Your task to perform on an android device: View the shopping cart on target. Add apple airpods pro to the cart on target Image 0: 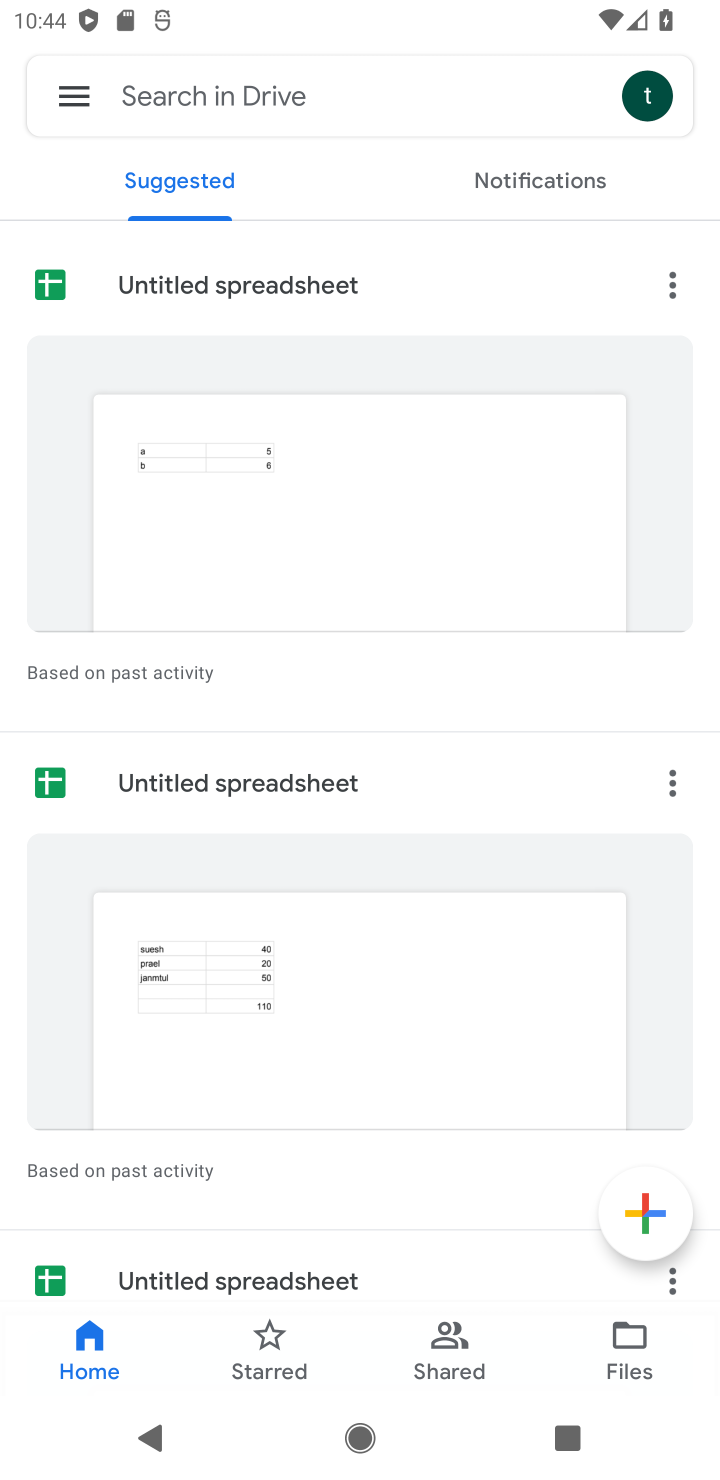
Step 0: press home button
Your task to perform on an android device: View the shopping cart on target. Add apple airpods pro to the cart on target Image 1: 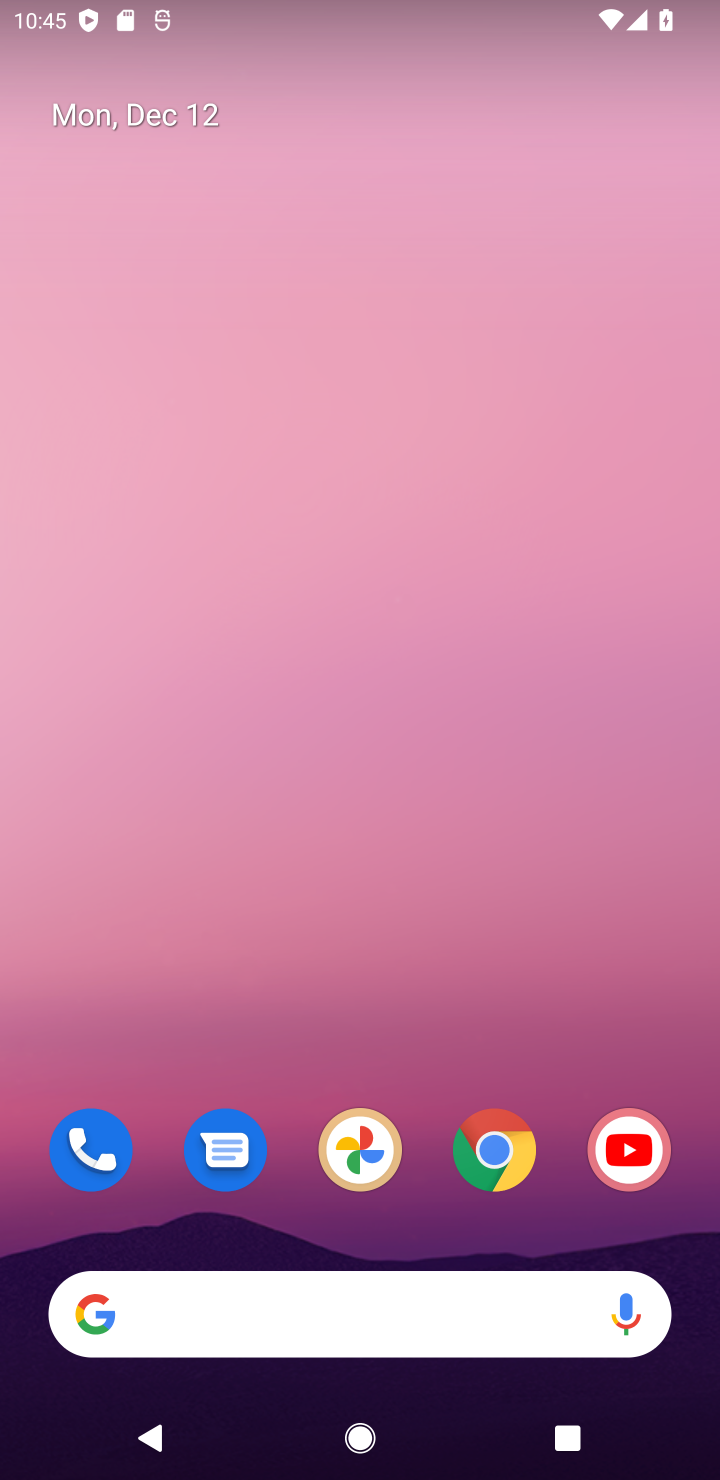
Step 1: click (501, 1145)
Your task to perform on an android device: View the shopping cart on target. Add apple airpods pro to the cart on target Image 2: 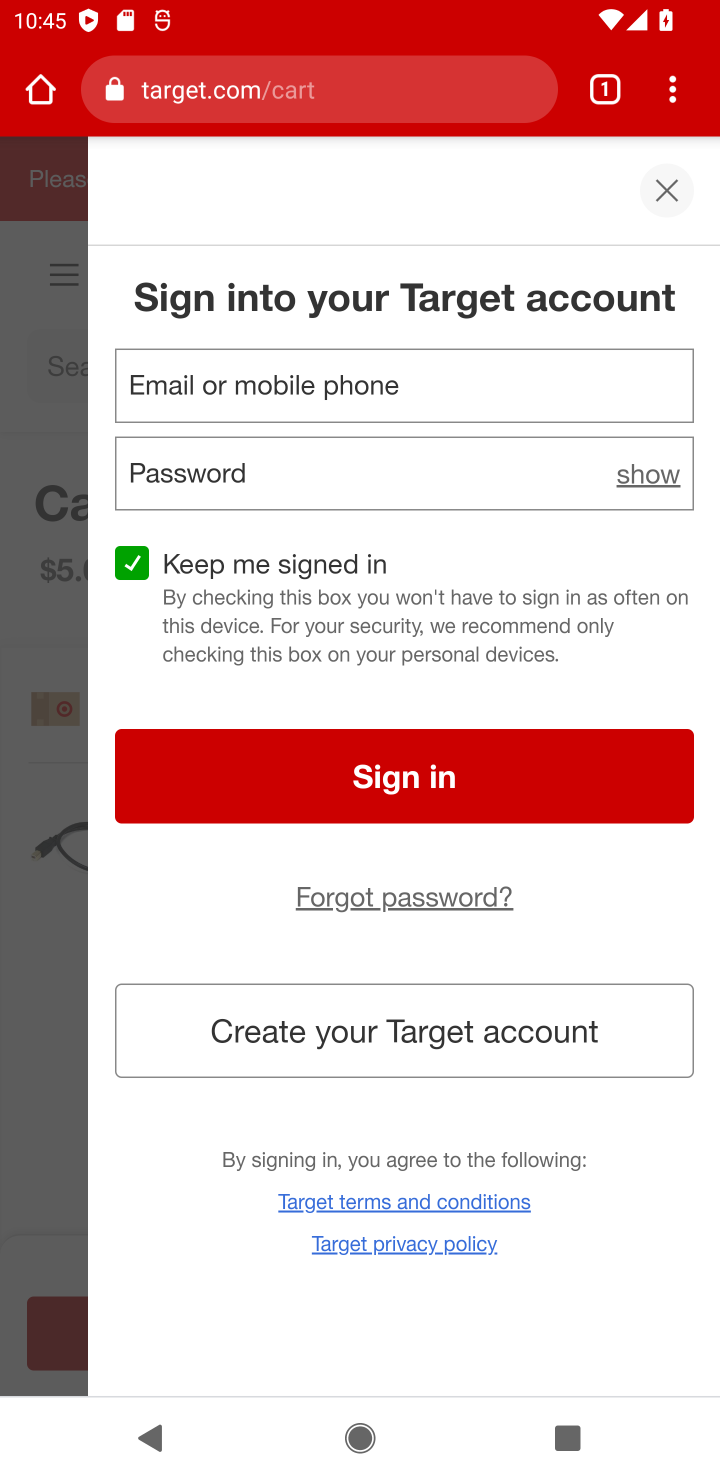
Step 2: click (660, 198)
Your task to perform on an android device: View the shopping cart on target. Add apple airpods pro to the cart on target Image 3: 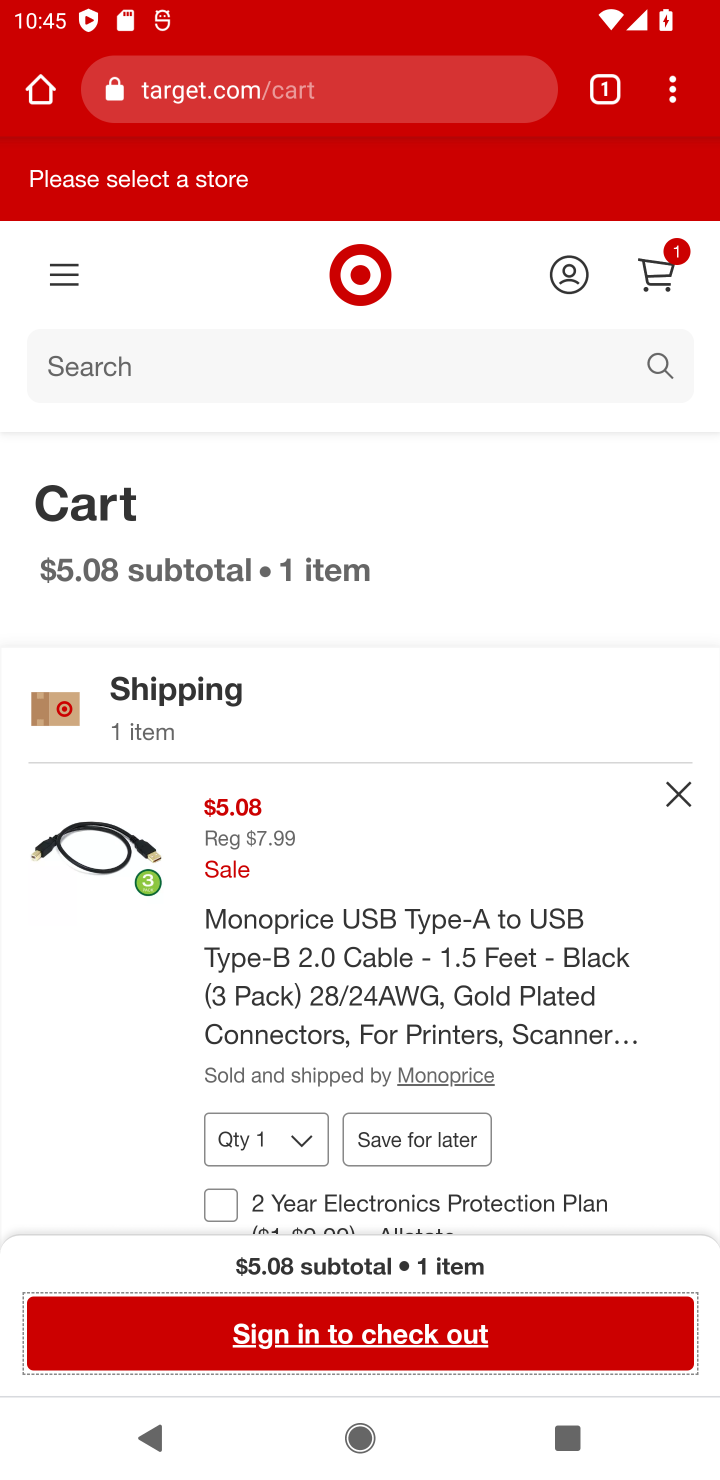
Step 3: drag from (421, 829) to (427, 516)
Your task to perform on an android device: View the shopping cart on target. Add apple airpods pro to the cart on target Image 4: 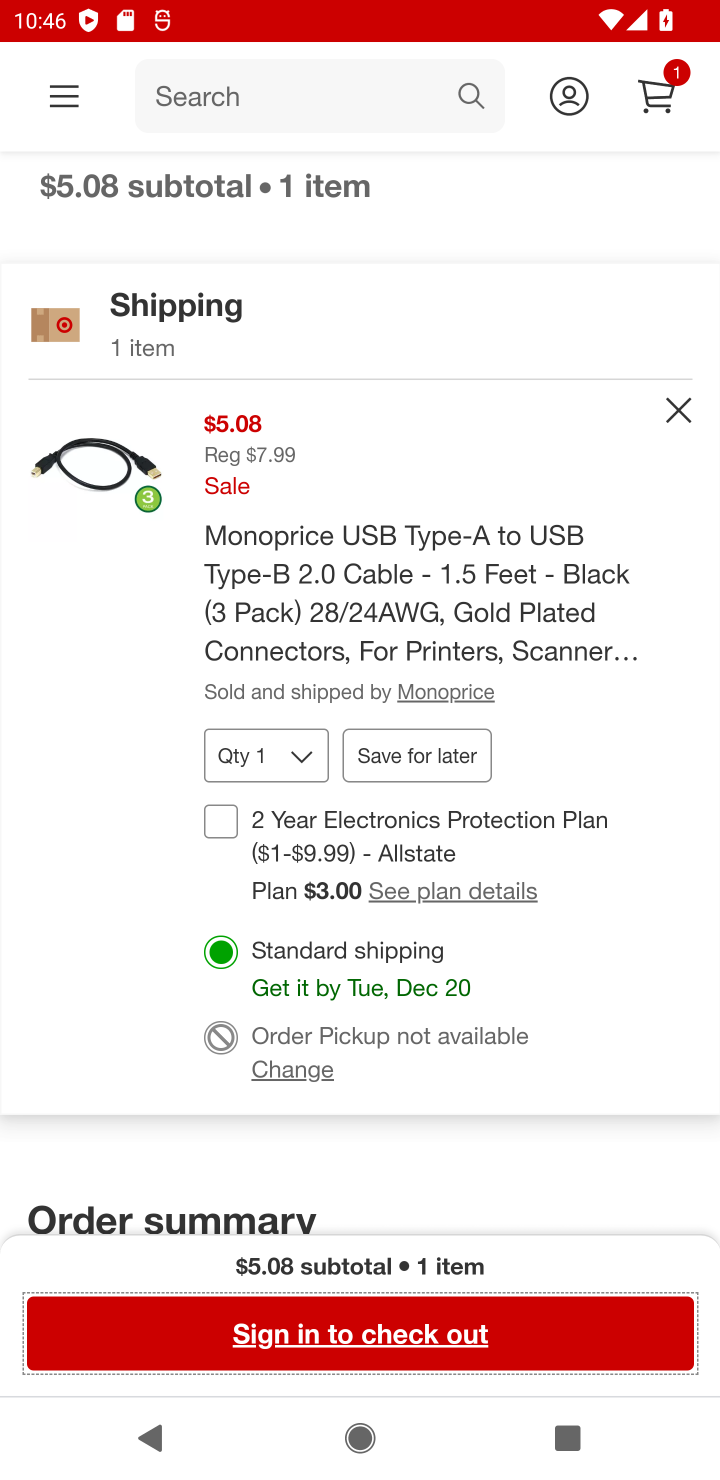
Step 4: drag from (293, 367) to (257, 680)
Your task to perform on an android device: View the shopping cart on target. Add apple airpods pro to the cart on target Image 5: 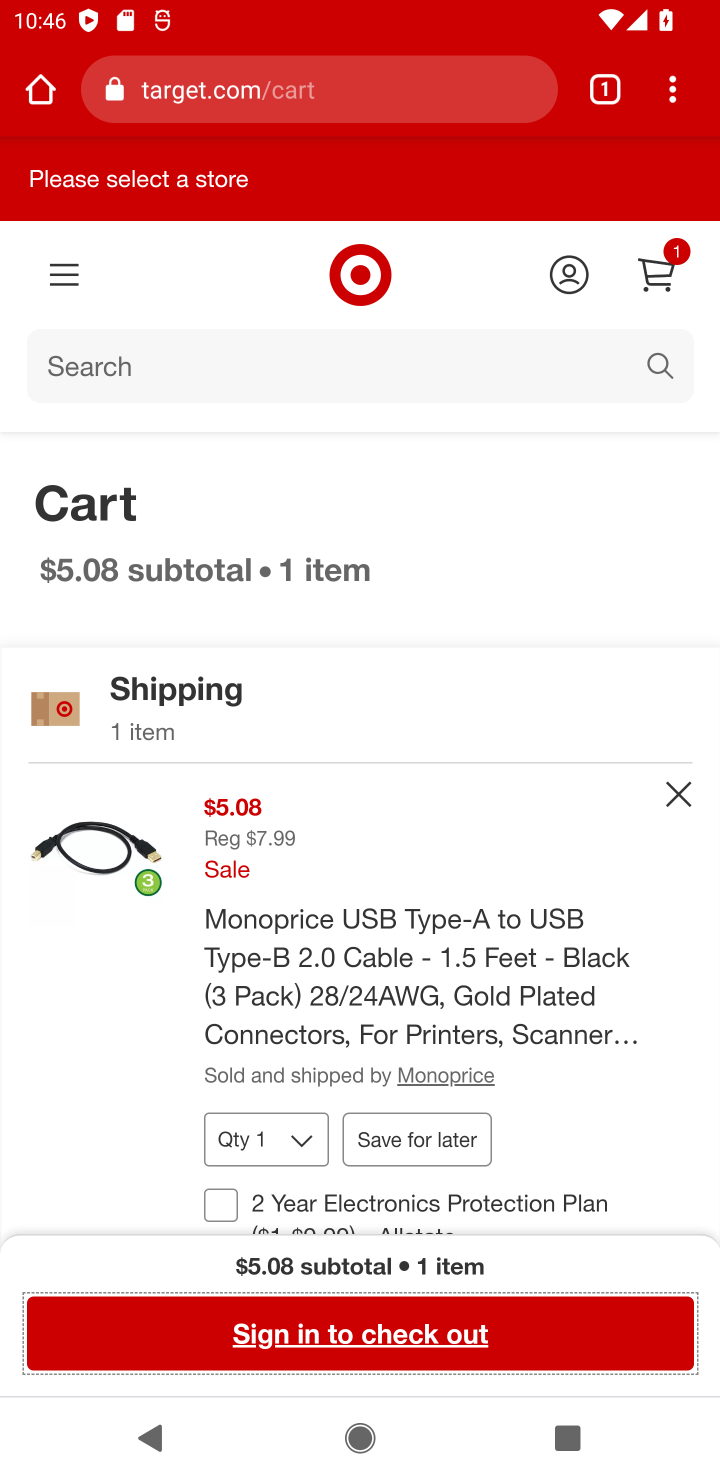
Step 5: click (96, 364)
Your task to perform on an android device: View the shopping cart on target. Add apple airpods pro to the cart on target Image 6: 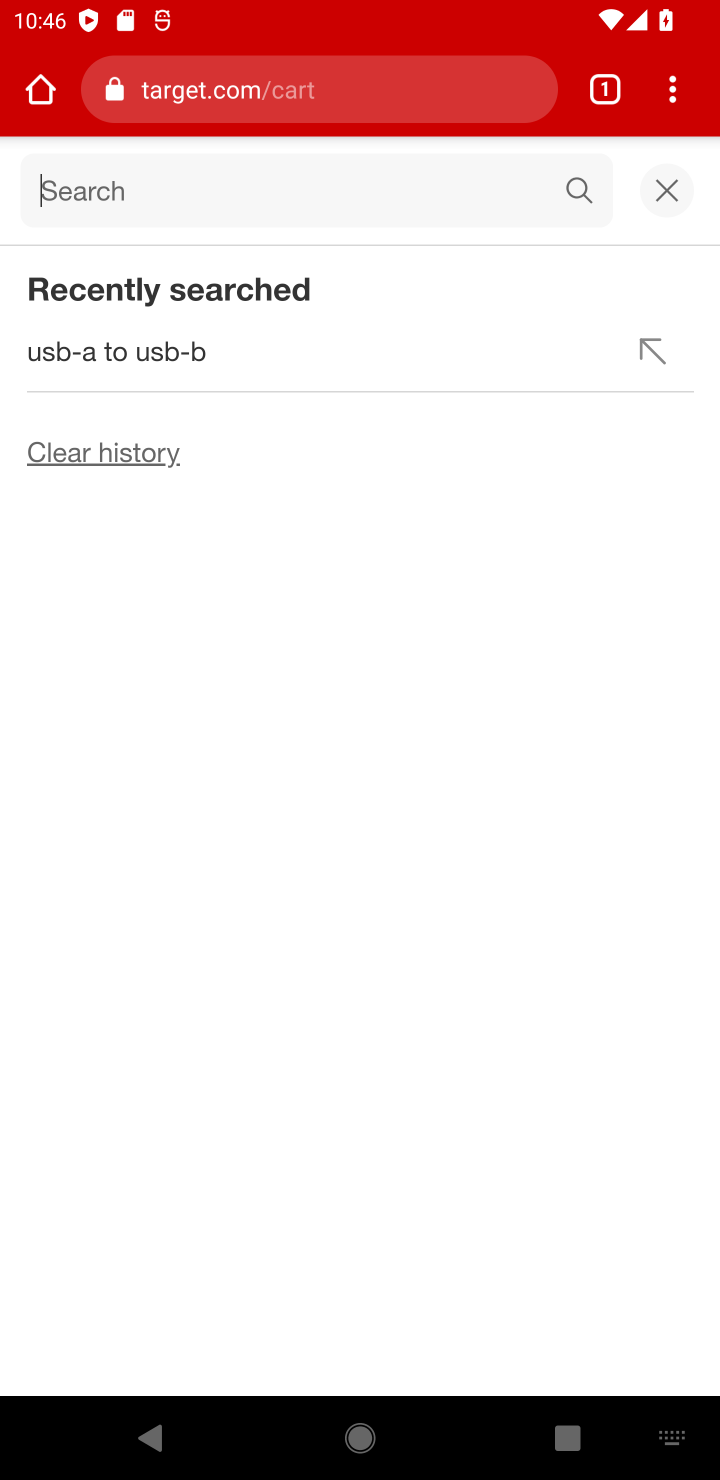
Step 6: type "apple airpods pro "
Your task to perform on an android device: View the shopping cart on target. Add apple airpods pro to the cart on target Image 7: 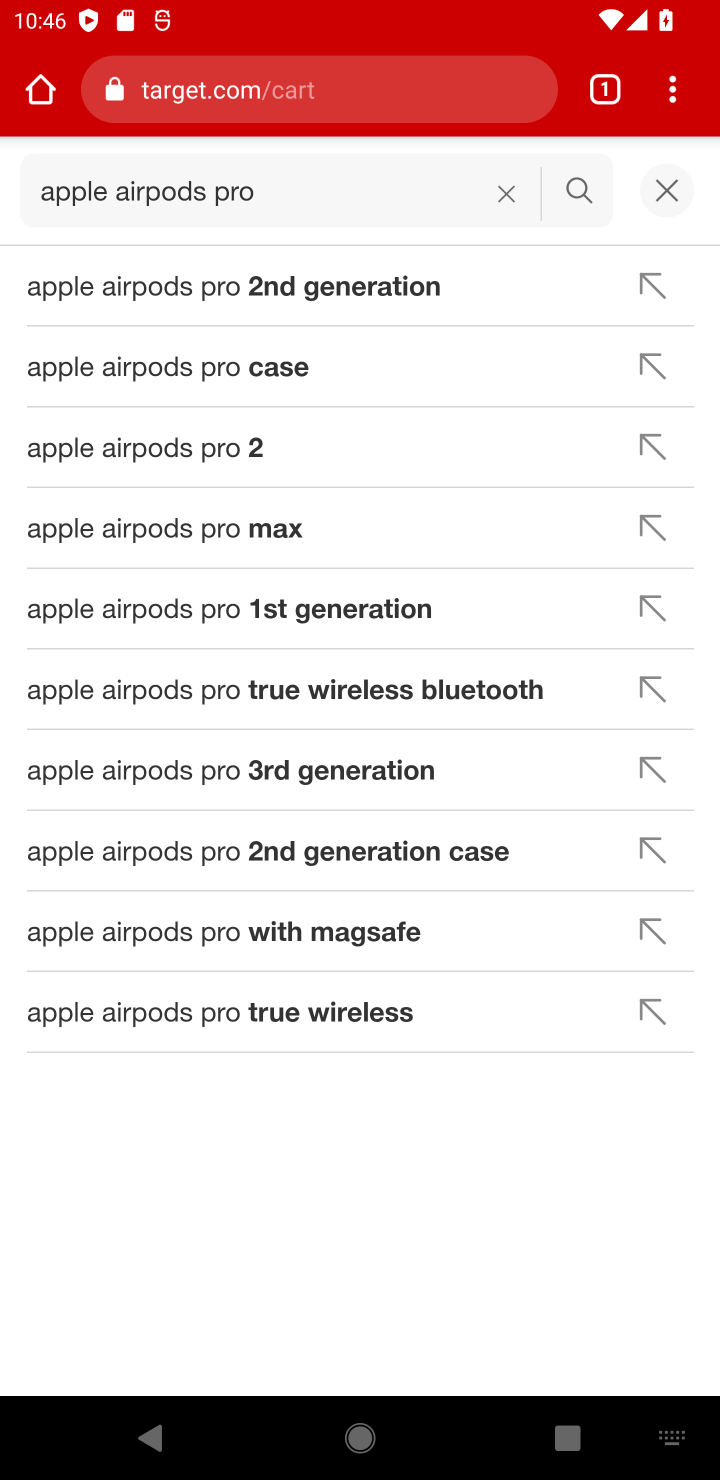
Step 7: click (578, 196)
Your task to perform on an android device: View the shopping cart on target. Add apple airpods pro to the cart on target Image 8: 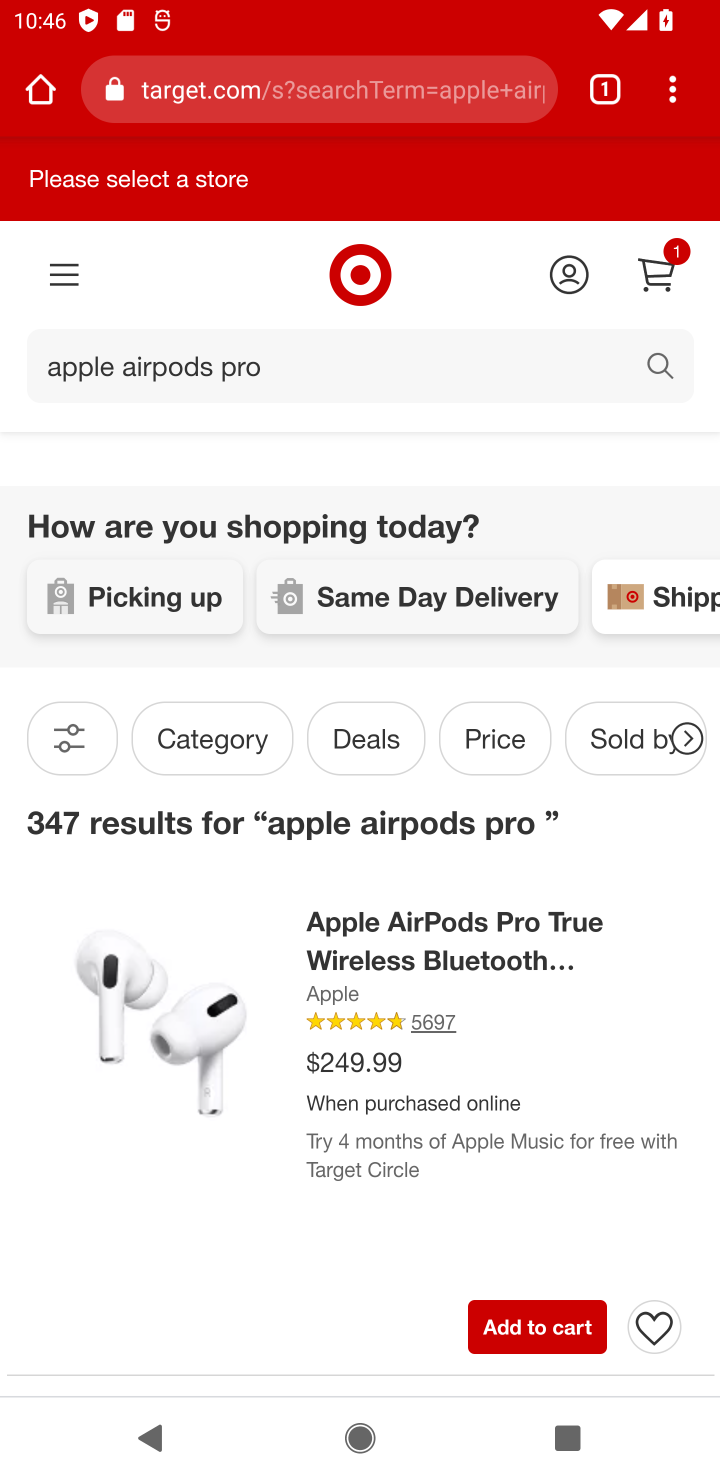
Step 8: click (523, 1322)
Your task to perform on an android device: View the shopping cart on target. Add apple airpods pro to the cart on target Image 9: 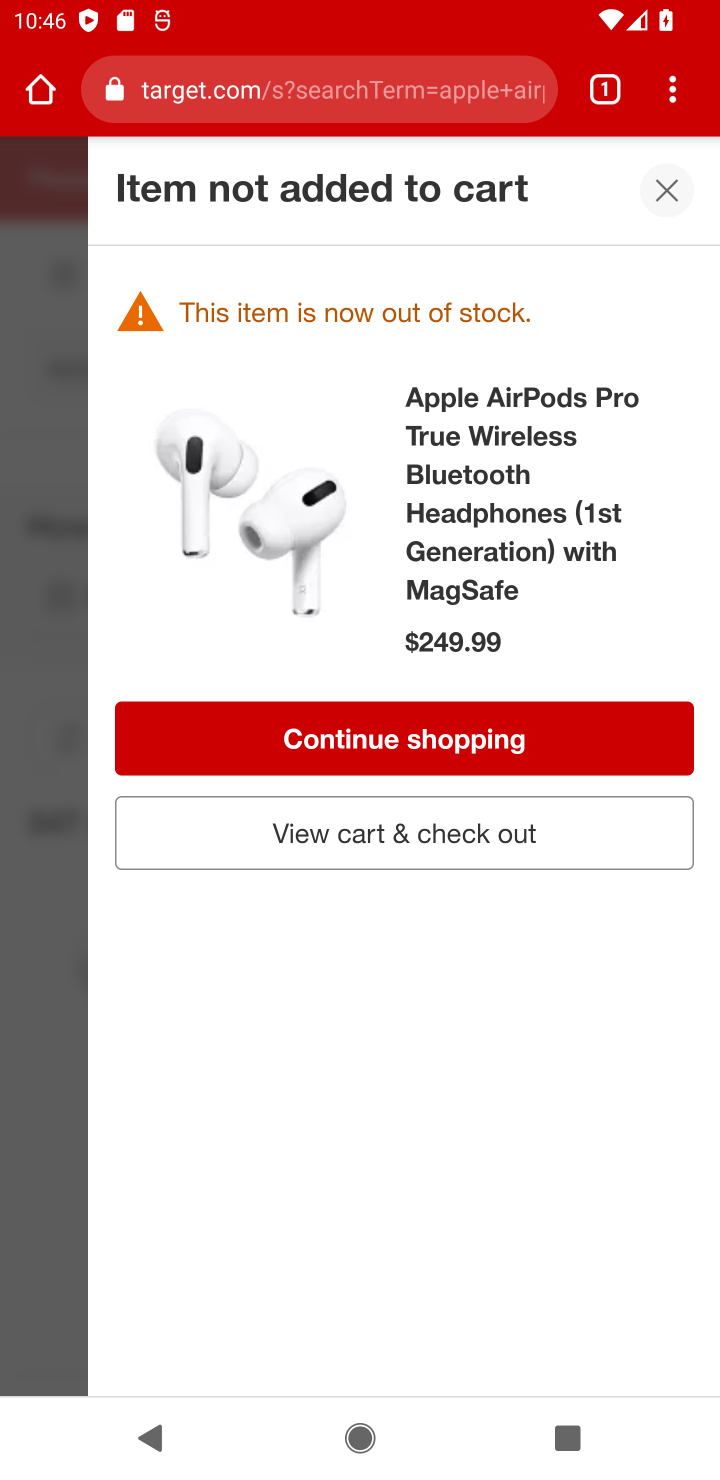
Step 9: task complete